Your task to perform on an android device: Go to internet settings Image 0: 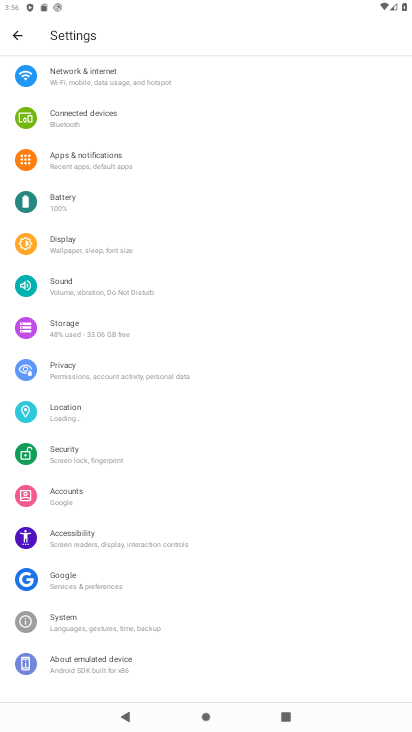
Step 0: click (64, 72)
Your task to perform on an android device: Go to internet settings Image 1: 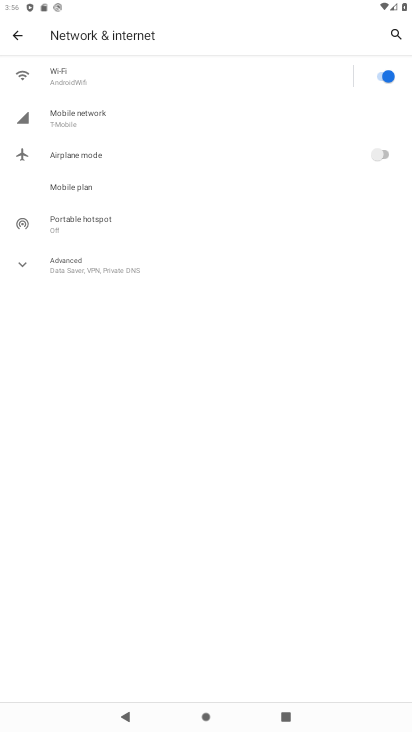
Step 1: click (104, 120)
Your task to perform on an android device: Go to internet settings Image 2: 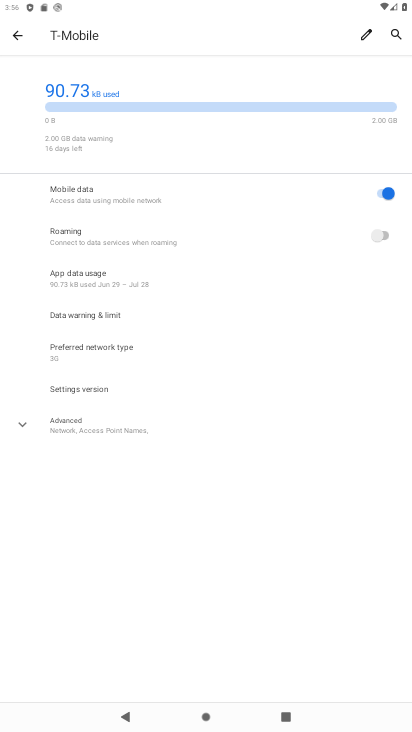
Step 2: task complete